Your task to perform on an android device: What's the weather going to be tomorrow? Image 0: 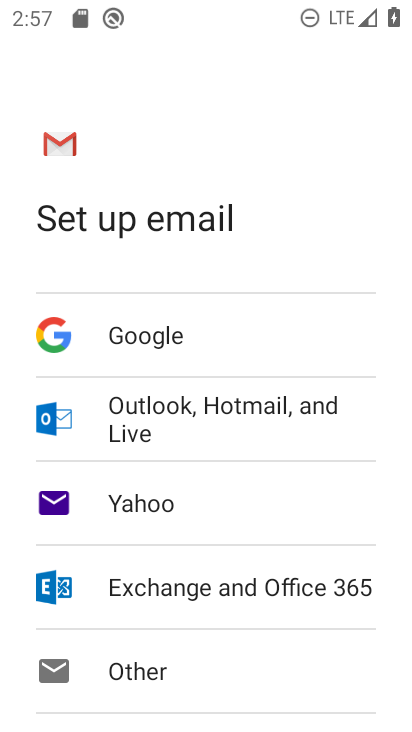
Step 0: press home button
Your task to perform on an android device: What's the weather going to be tomorrow? Image 1: 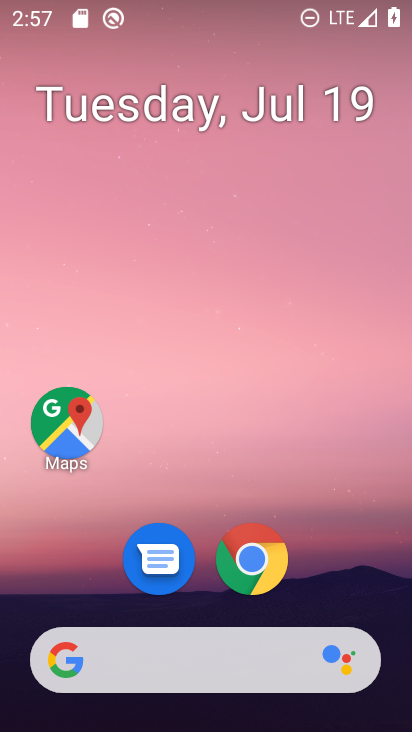
Step 1: drag from (183, 658) to (170, 71)
Your task to perform on an android device: What's the weather going to be tomorrow? Image 2: 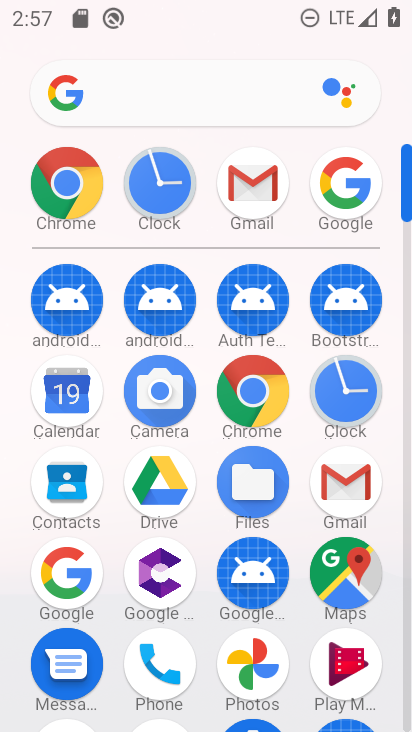
Step 2: click (70, 574)
Your task to perform on an android device: What's the weather going to be tomorrow? Image 3: 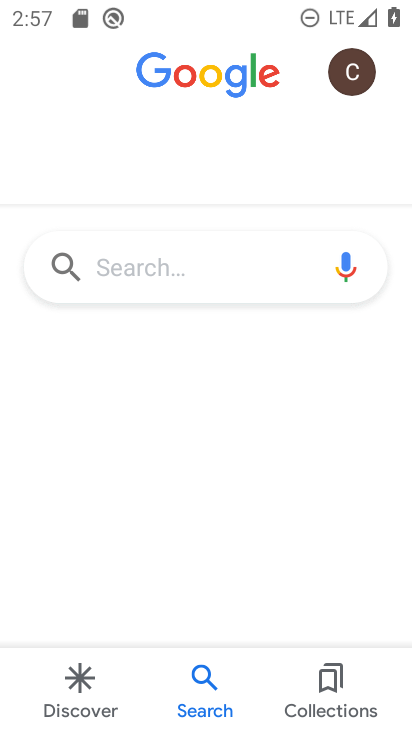
Step 3: click (166, 275)
Your task to perform on an android device: What's the weather going to be tomorrow? Image 4: 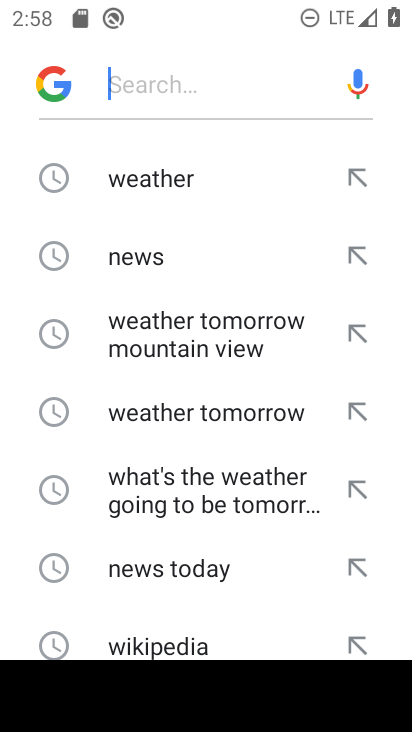
Step 4: click (143, 190)
Your task to perform on an android device: What's the weather going to be tomorrow? Image 5: 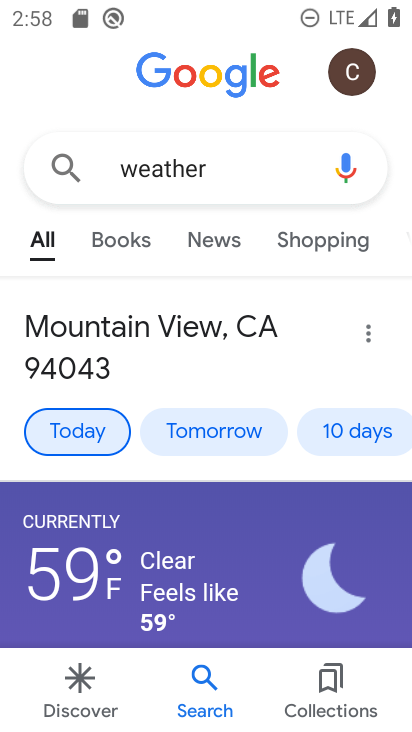
Step 5: click (248, 446)
Your task to perform on an android device: What's the weather going to be tomorrow? Image 6: 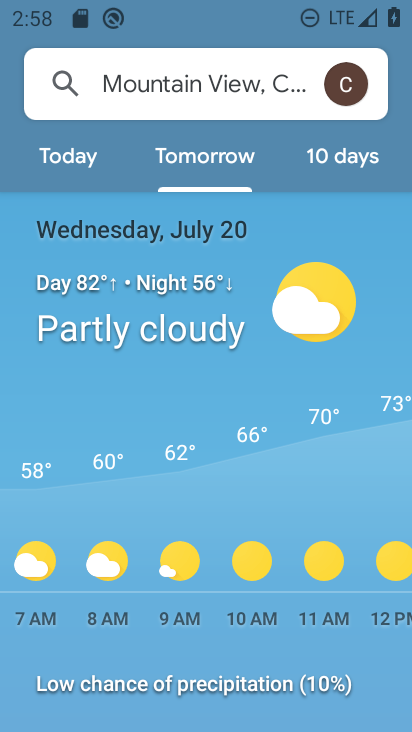
Step 6: task complete